Your task to perform on an android device: Clear the cart on bestbuy. Search for dell xps on bestbuy, select the first entry, and add it to the cart. Image 0: 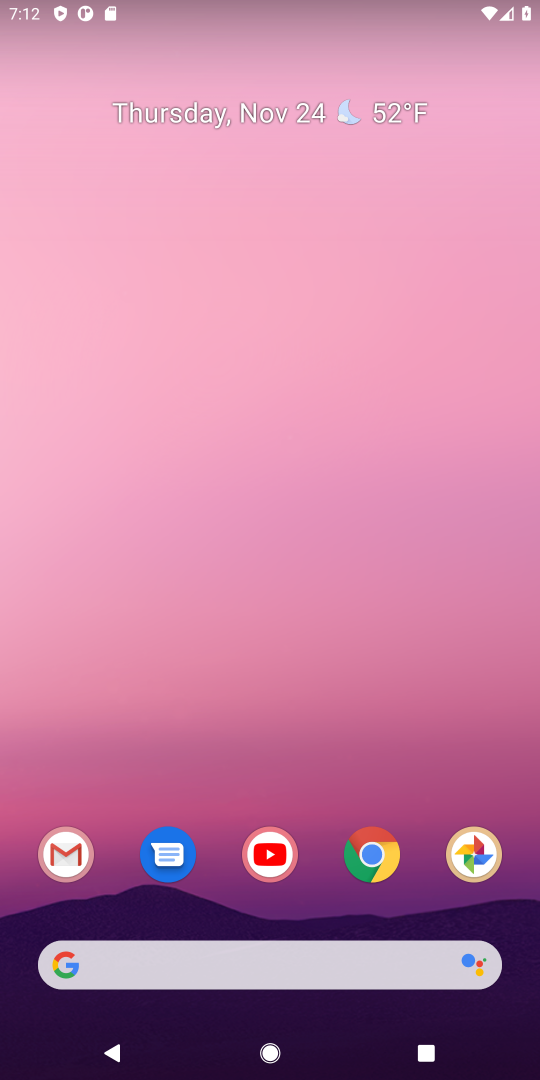
Step 0: click (372, 848)
Your task to perform on an android device: Clear the cart on bestbuy. Search for dell xps on bestbuy, select the first entry, and add it to the cart. Image 1: 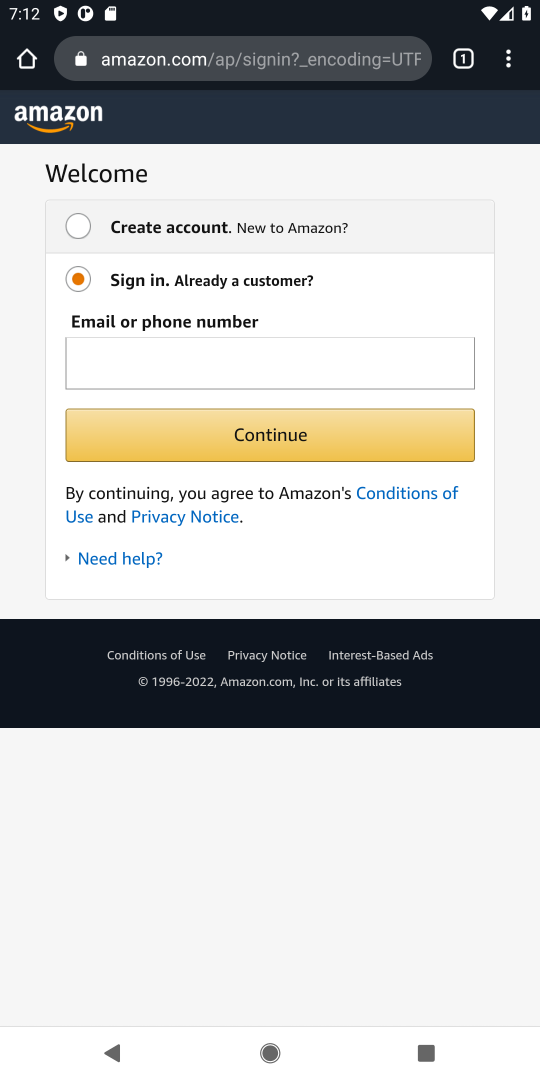
Step 1: click (202, 58)
Your task to perform on an android device: Clear the cart on bestbuy. Search for dell xps on bestbuy, select the first entry, and add it to the cart. Image 2: 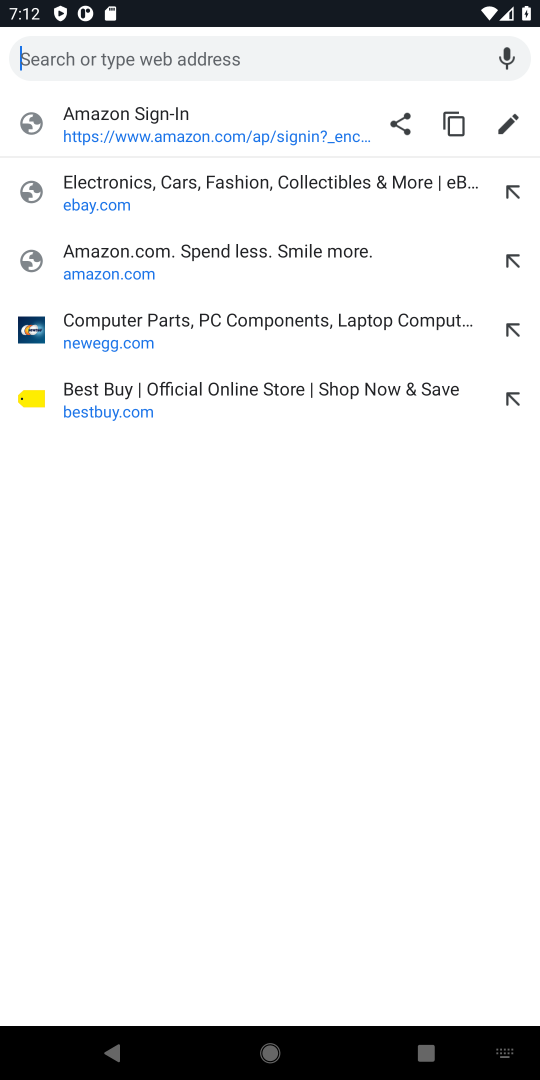
Step 2: click (68, 399)
Your task to perform on an android device: Clear the cart on bestbuy. Search for dell xps on bestbuy, select the first entry, and add it to the cart. Image 3: 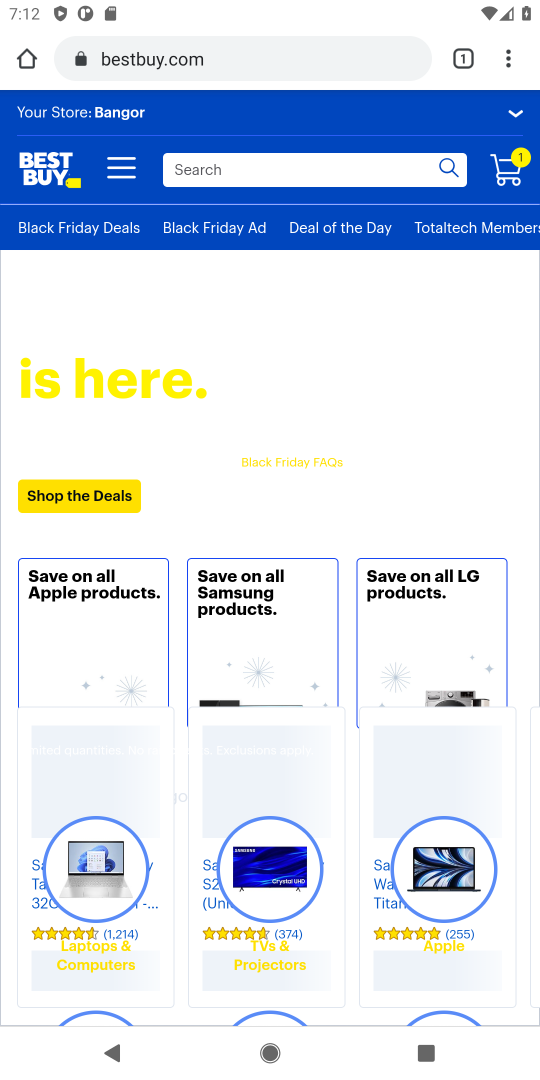
Step 3: click (505, 176)
Your task to perform on an android device: Clear the cart on bestbuy. Search for dell xps on bestbuy, select the first entry, and add it to the cart. Image 4: 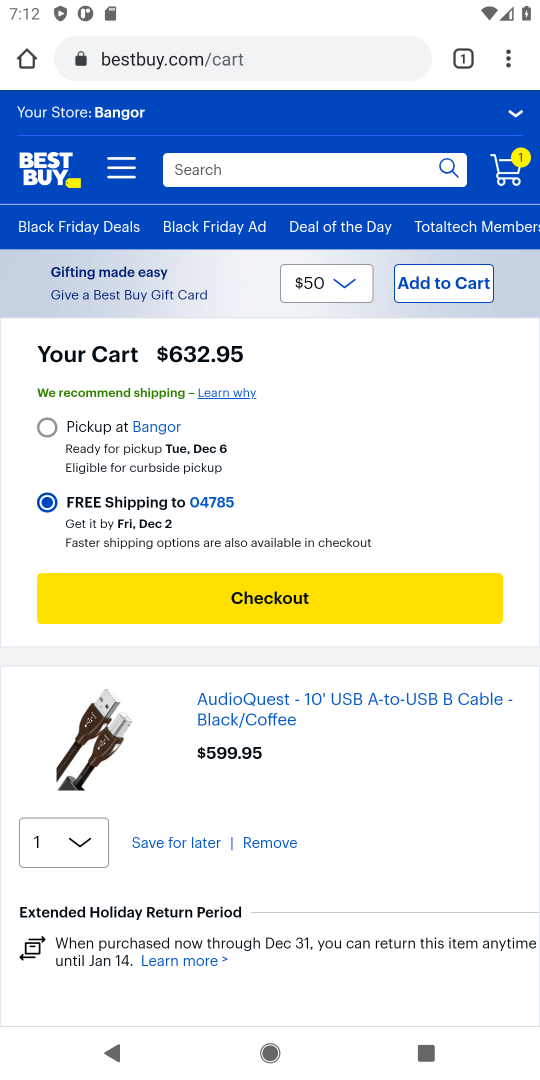
Step 4: drag from (400, 685) to (388, 318)
Your task to perform on an android device: Clear the cart on bestbuy. Search for dell xps on bestbuy, select the first entry, and add it to the cart. Image 5: 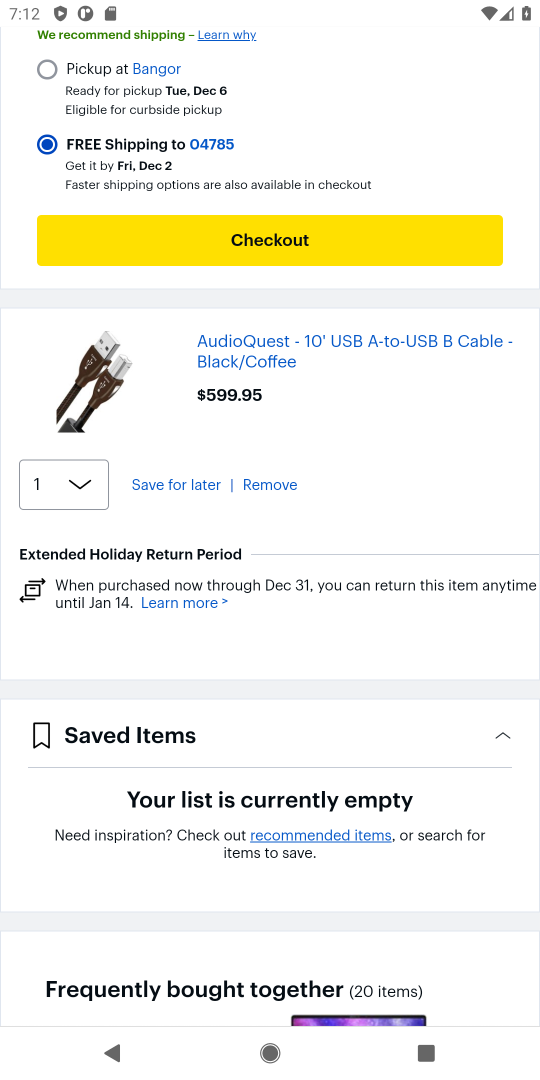
Step 5: click (268, 487)
Your task to perform on an android device: Clear the cart on bestbuy. Search for dell xps on bestbuy, select the first entry, and add it to the cart. Image 6: 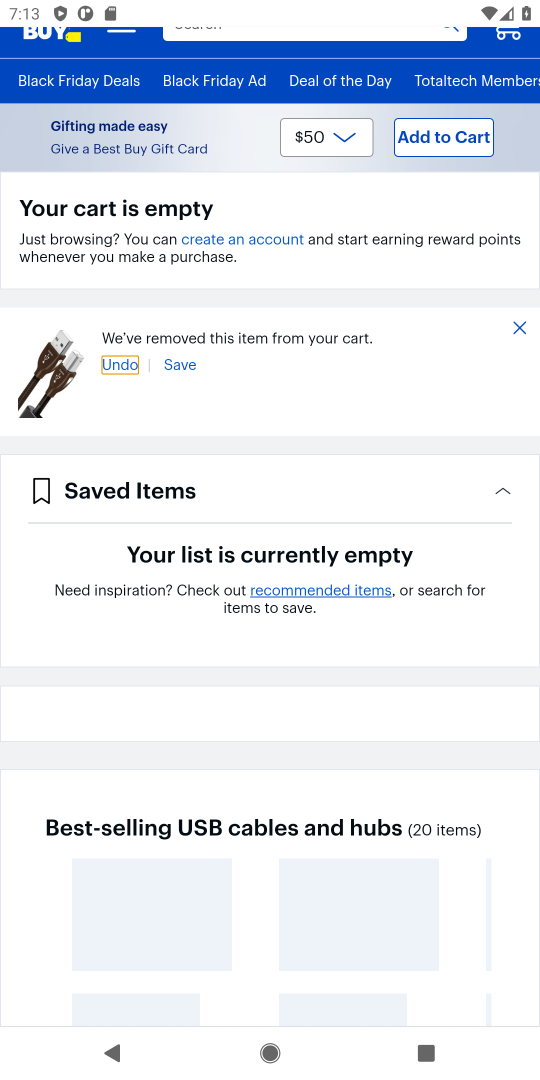
Step 6: drag from (312, 517) to (313, 631)
Your task to perform on an android device: Clear the cart on bestbuy. Search for dell xps on bestbuy, select the first entry, and add it to the cart. Image 7: 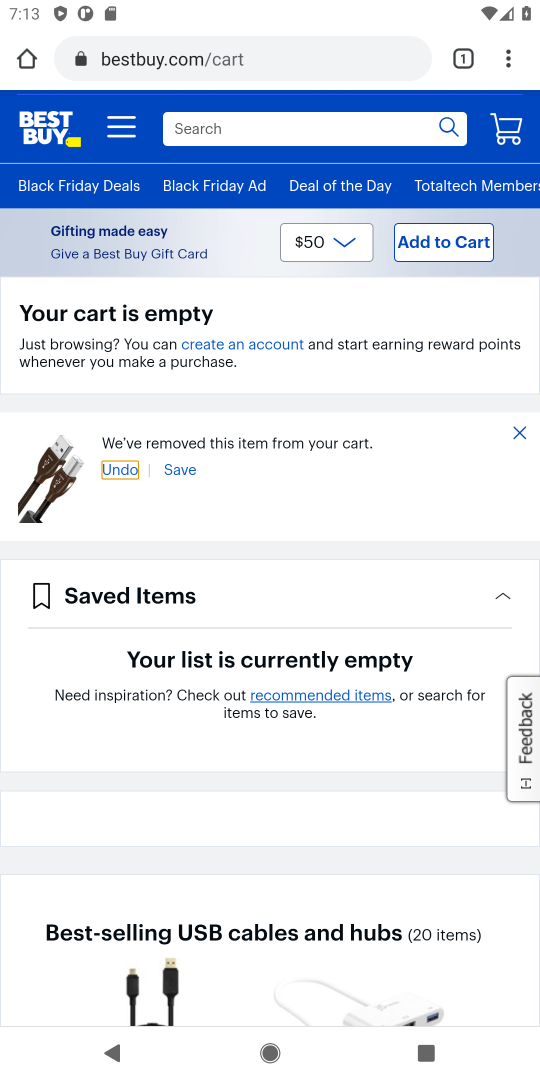
Step 7: click (197, 119)
Your task to perform on an android device: Clear the cart on bestbuy. Search for dell xps on bestbuy, select the first entry, and add it to the cart. Image 8: 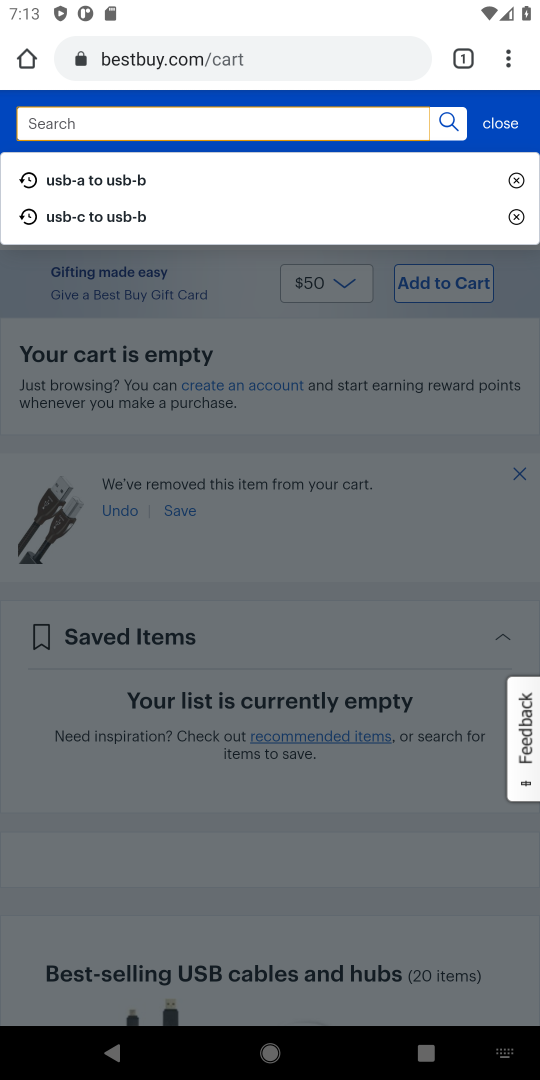
Step 8: type "dell xps "
Your task to perform on an android device: Clear the cart on bestbuy. Search for dell xps on bestbuy, select the first entry, and add it to the cart. Image 9: 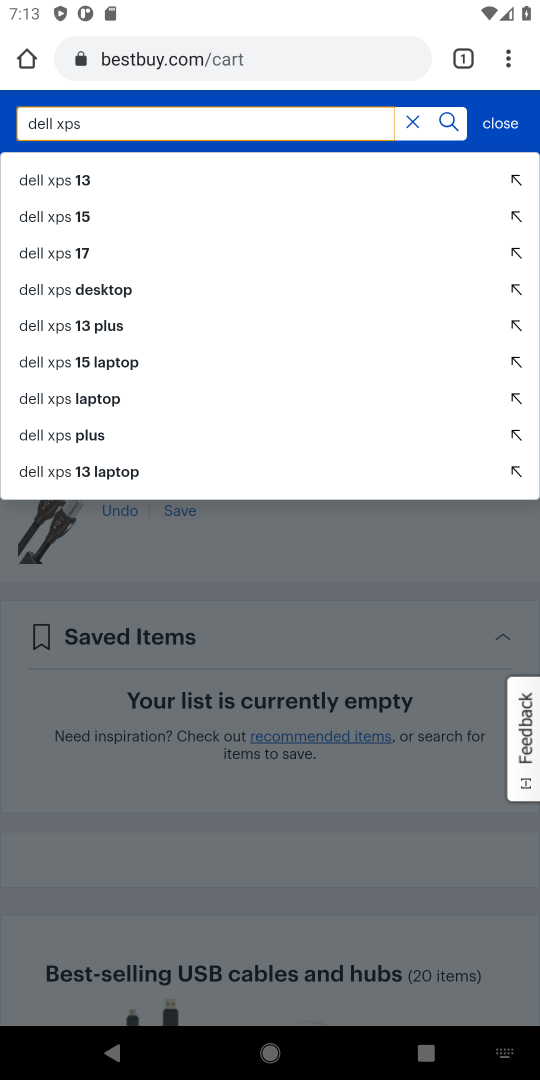
Step 9: click (59, 184)
Your task to perform on an android device: Clear the cart on bestbuy. Search for dell xps on bestbuy, select the first entry, and add it to the cart. Image 10: 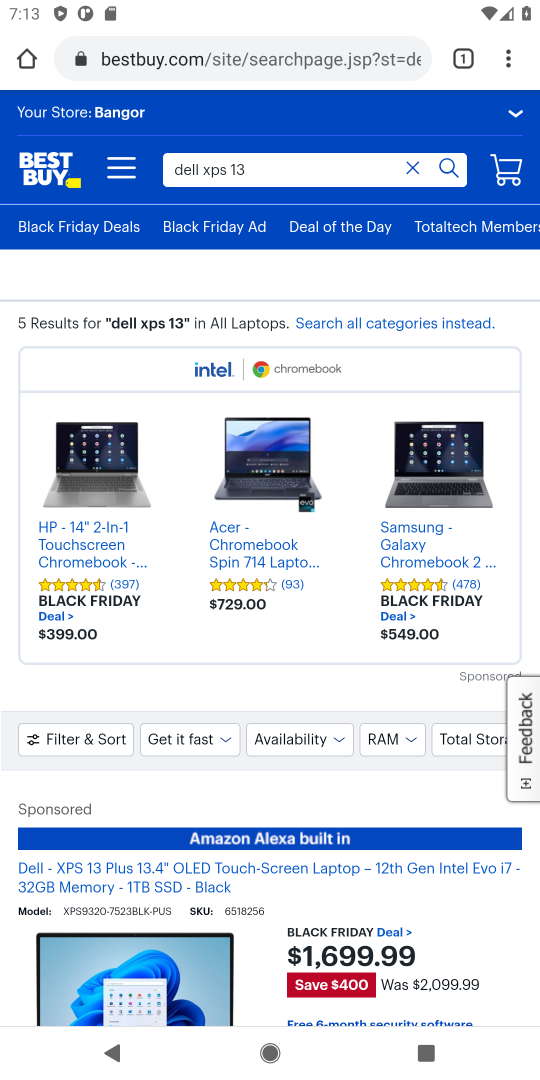
Step 10: drag from (290, 683) to (231, 408)
Your task to perform on an android device: Clear the cart on bestbuy. Search for dell xps on bestbuy, select the first entry, and add it to the cart. Image 11: 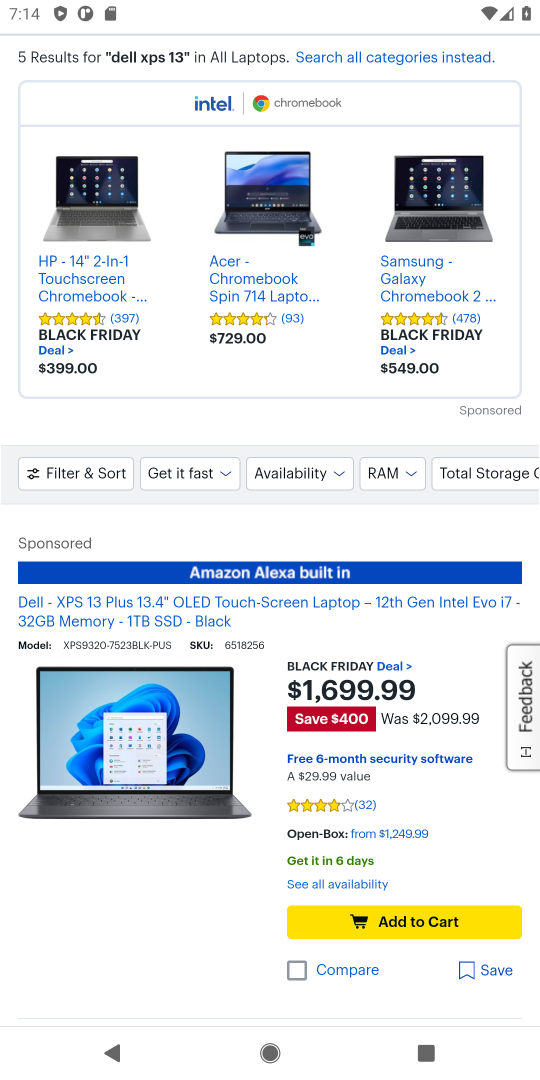
Step 11: click (407, 922)
Your task to perform on an android device: Clear the cart on bestbuy. Search for dell xps on bestbuy, select the first entry, and add it to the cart. Image 12: 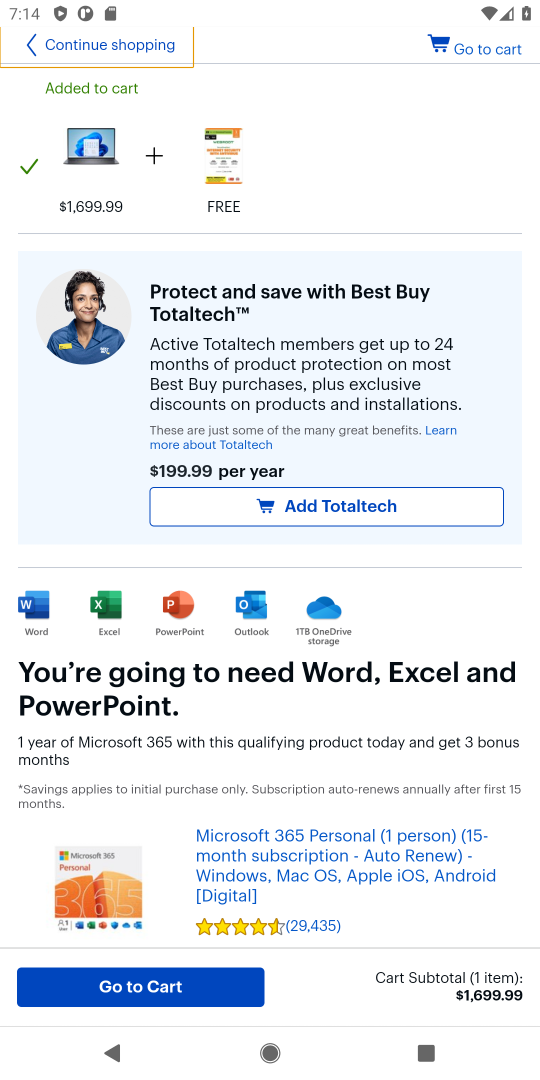
Step 12: task complete